Your task to perform on an android device: What's the weather? Image 0: 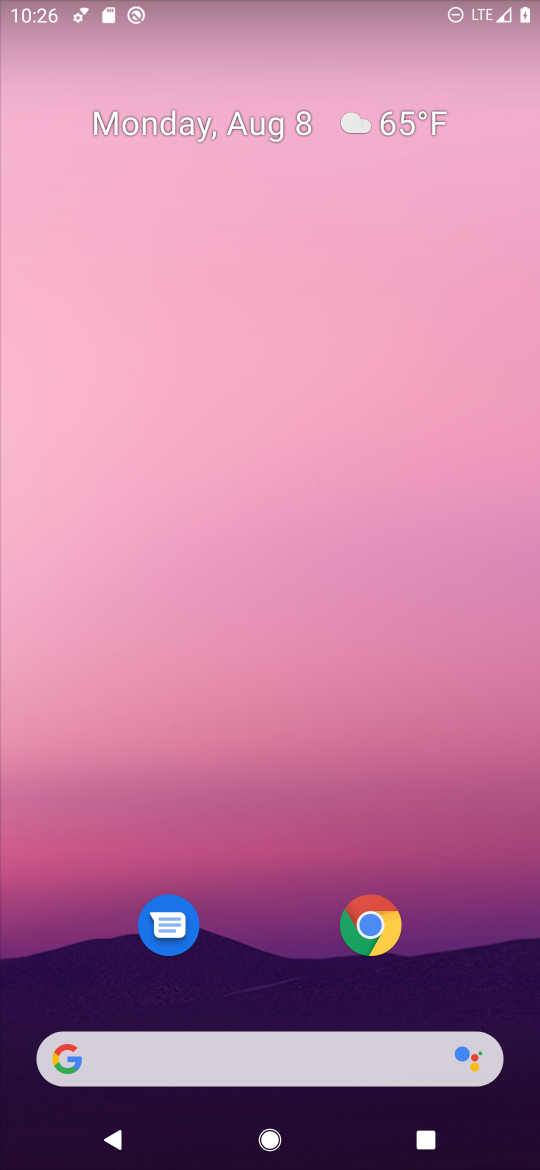
Step 0: drag from (258, 937) to (250, 164)
Your task to perform on an android device: What's the weather? Image 1: 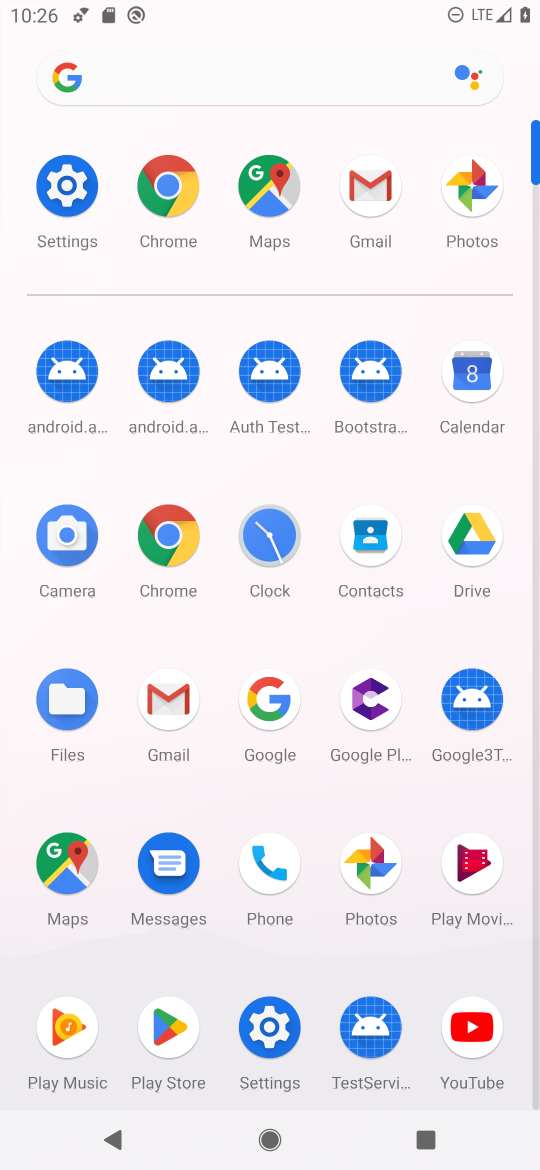
Step 1: click (169, 535)
Your task to perform on an android device: What's the weather? Image 2: 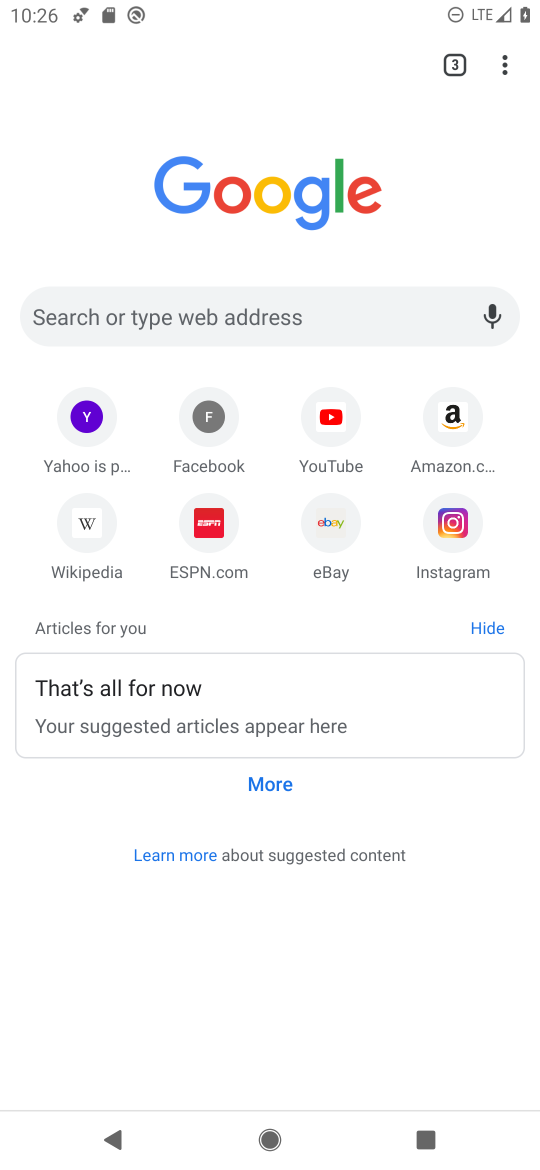
Step 2: click (294, 307)
Your task to perform on an android device: What's the weather? Image 3: 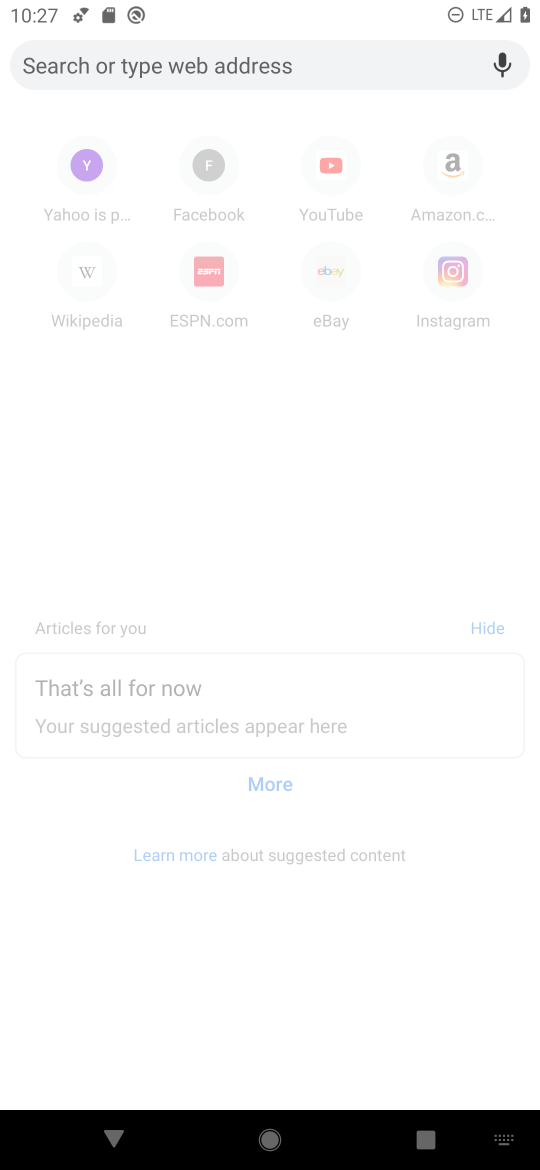
Step 3: type "weather"
Your task to perform on an android device: What's the weather? Image 4: 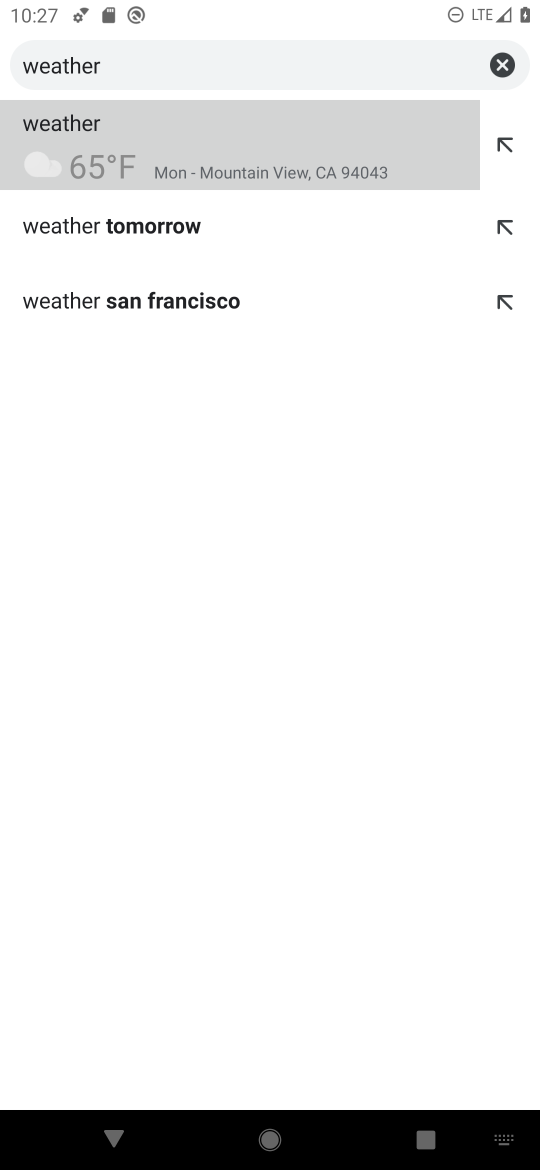
Step 4: click (205, 163)
Your task to perform on an android device: What's the weather? Image 5: 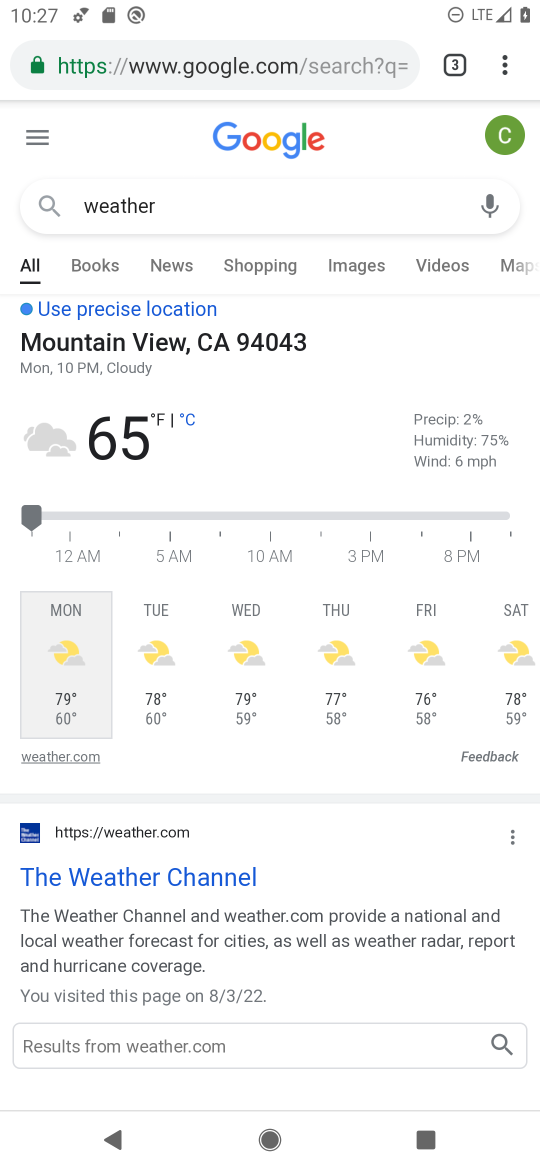
Step 5: task complete